Your task to perform on an android device: Open Amazon Image 0: 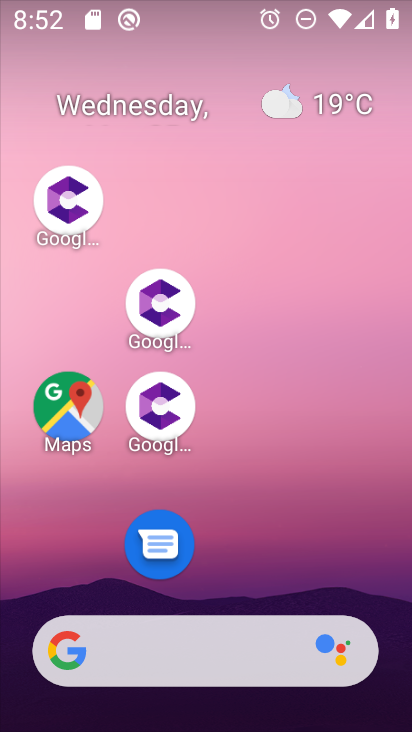
Step 0: drag from (316, 522) to (165, 10)
Your task to perform on an android device: Open Amazon Image 1: 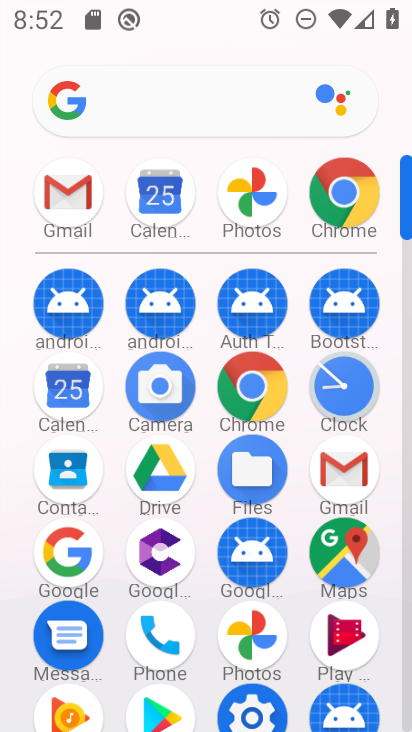
Step 1: click (343, 193)
Your task to perform on an android device: Open Amazon Image 2: 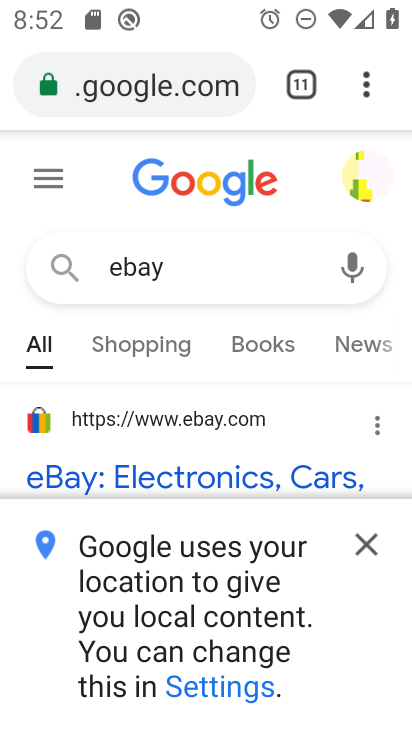
Step 2: click (374, 87)
Your task to perform on an android device: Open Amazon Image 3: 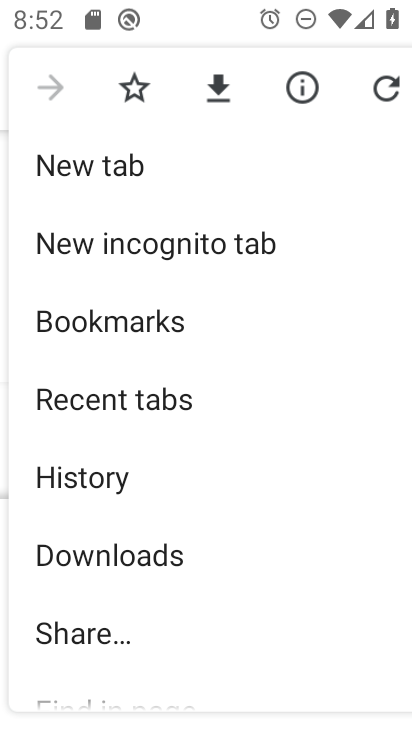
Step 3: click (104, 170)
Your task to perform on an android device: Open Amazon Image 4: 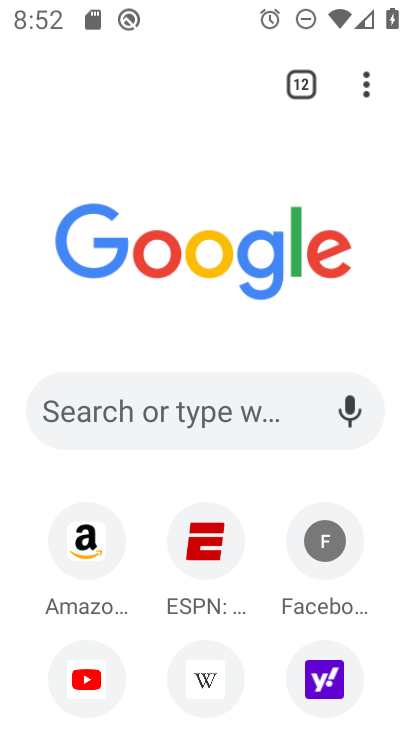
Step 4: click (85, 545)
Your task to perform on an android device: Open Amazon Image 5: 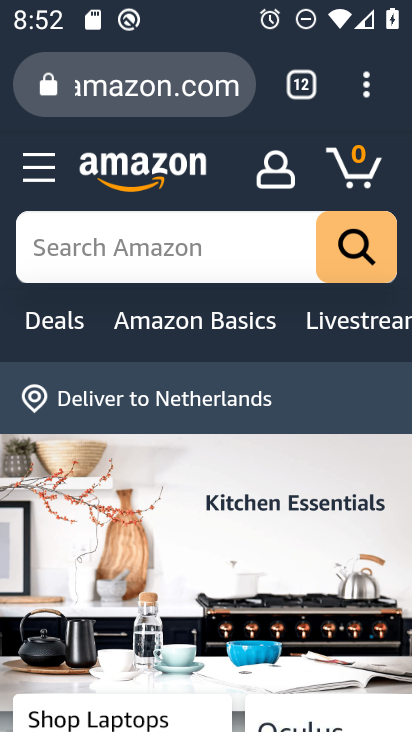
Step 5: task complete